Your task to perform on an android device: Open display settings Image 0: 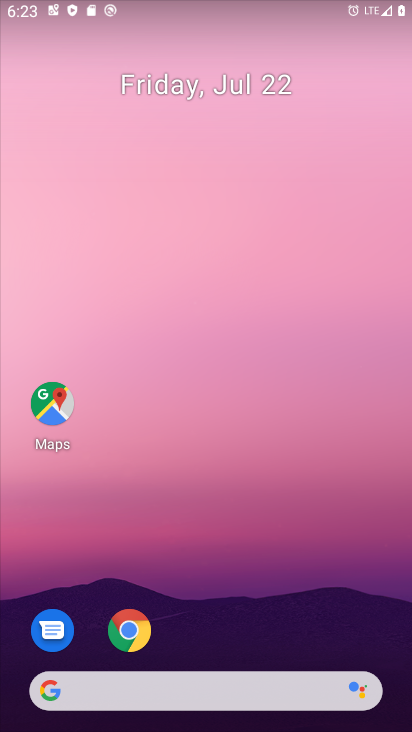
Step 0: drag from (332, 677) to (297, 1)
Your task to perform on an android device: Open display settings Image 1: 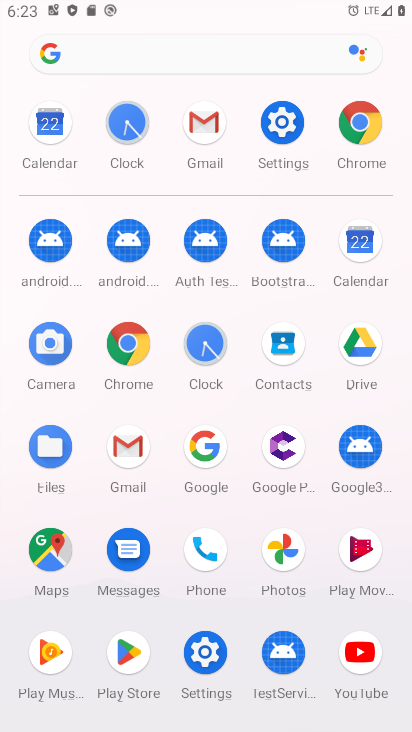
Step 1: click (281, 123)
Your task to perform on an android device: Open display settings Image 2: 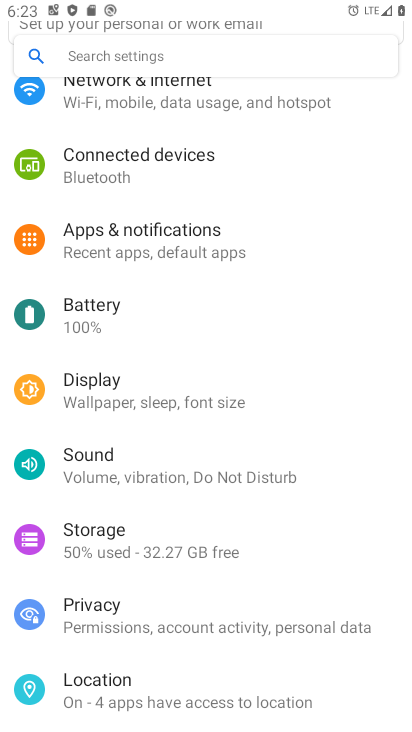
Step 2: click (109, 394)
Your task to perform on an android device: Open display settings Image 3: 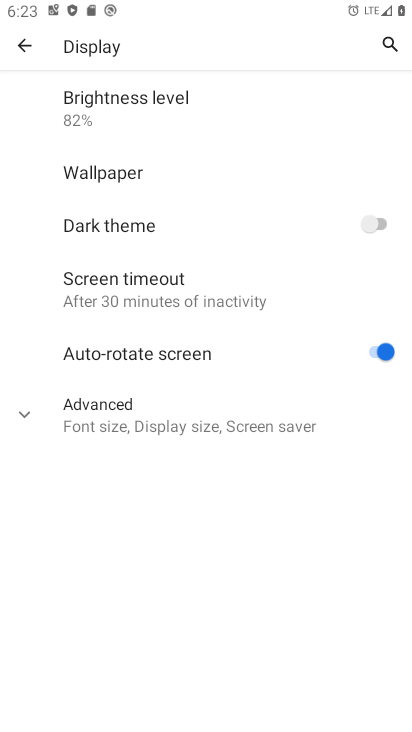
Step 3: task complete